Your task to perform on an android device: Open my contact list Image 0: 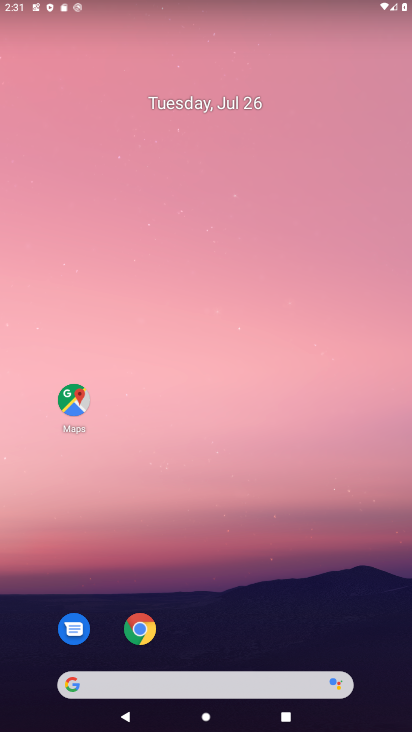
Step 0: drag from (205, 640) to (224, 231)
Your task to perform on an android device: Open my contact list Image 1: 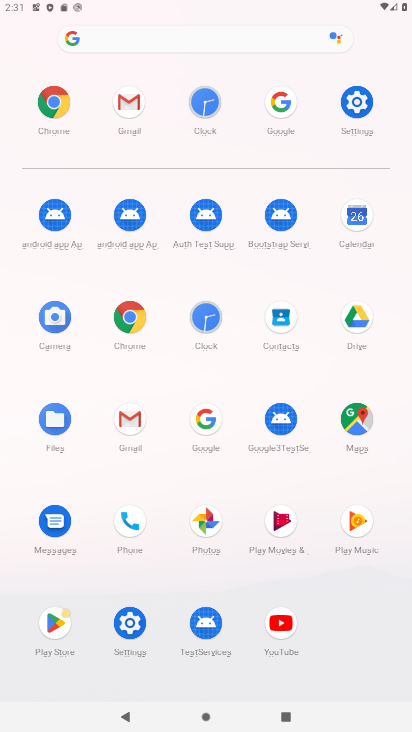
Step 1: click (290, 323)
Your task to perform on an android device: Open my contact list Image 2: 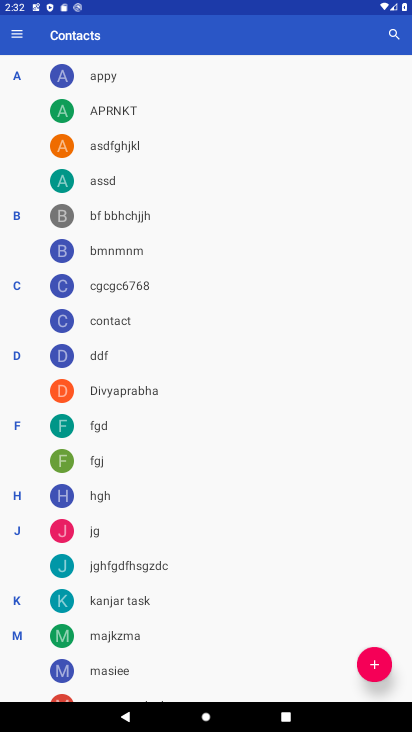
Step 2: task complete